Your task to perform on an android device: turn off data saver in the chrome app Image 0: 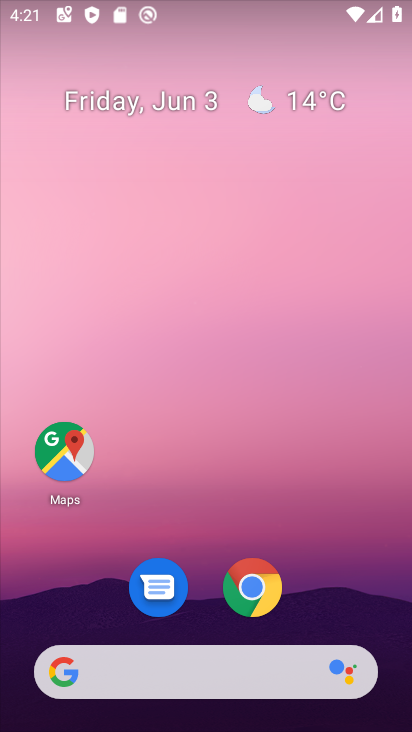
Step 0: click (253, 585)
Your task to perform on an android device: turn off data saver in the chrome app Image 1: 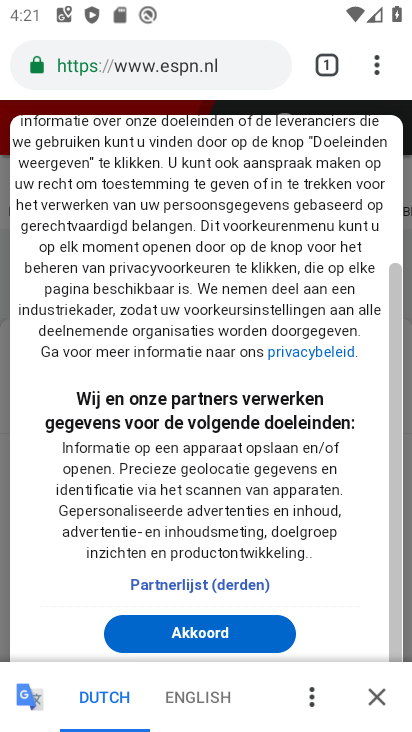
Step 1: click (376, 67)
Your task to perform on an android device: turn off data saver in the chrome app Image 2: 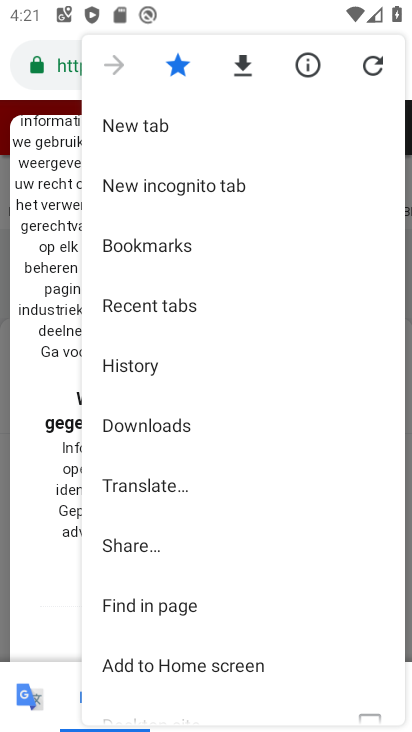
Step 2: drag from (164, 669) to (164, 348)
Your task to perform on an android device: turn off data saver in the chrome app Image 3: 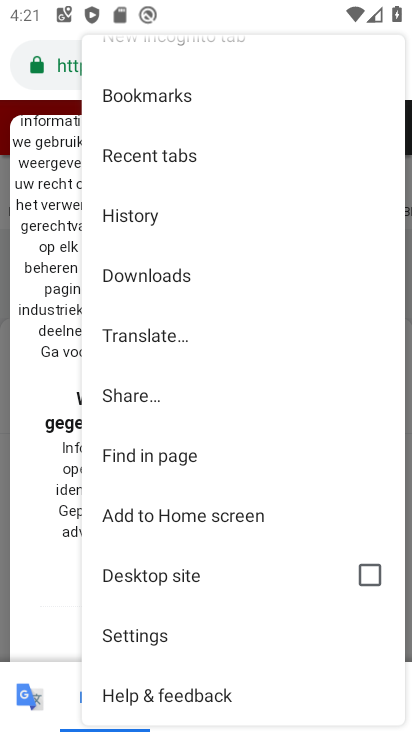
Step 3: click (137, 640)
Your task to perform on an android device: turn off data saver in the chrome app Image 4: 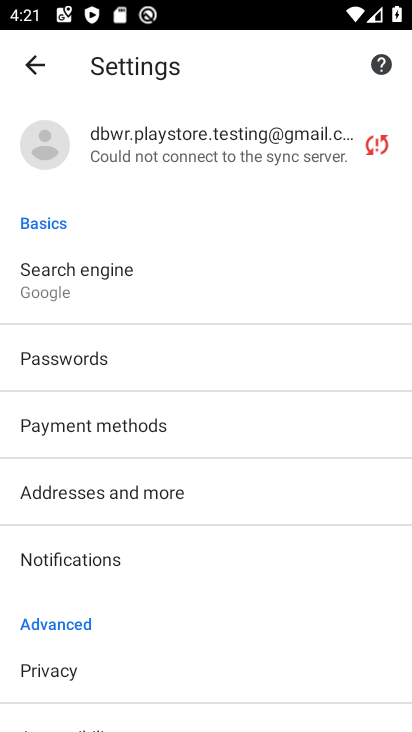
Step 4: drag from (113, 707) to (93, 347)
Your task to perform on an android device: turn off data saver in the chrome app Image 5: 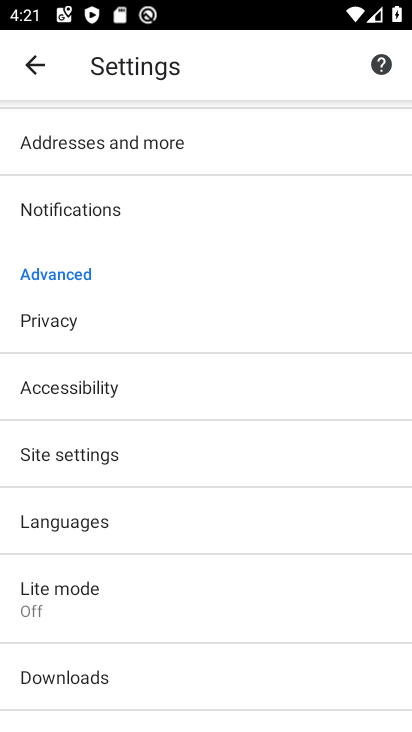
Step 5: click (63, 612)
Your task to perform on an android device: turn off data saver in the chrome app Image 6: 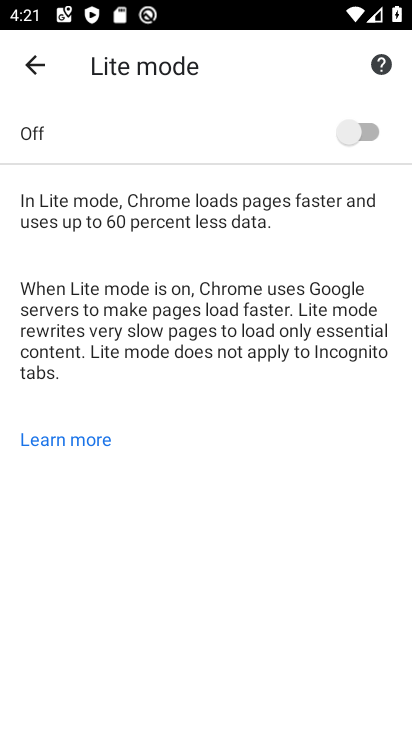
Step 6: task complete